Your task to perform on an android device: Go to location settings Image 0: 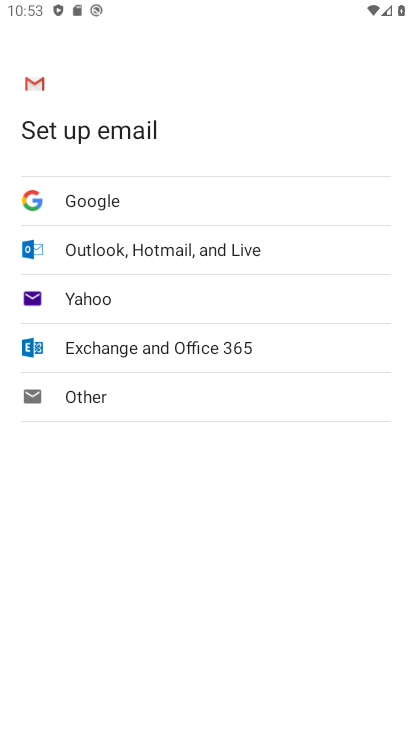
Step 0: press home button
Your task to perform on an android device: Go to location settings Image 1: 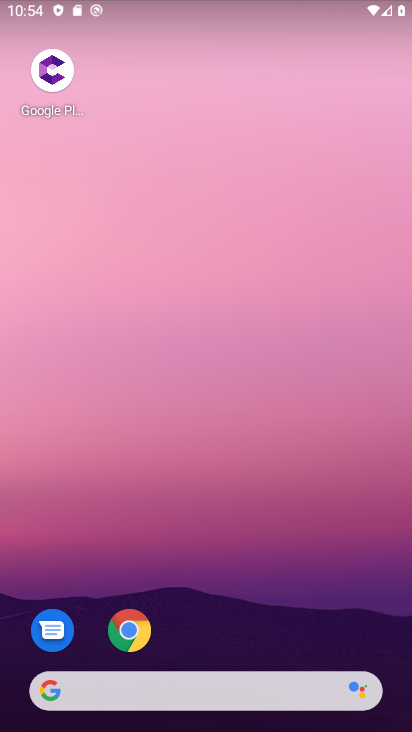
Step 1: drag from (274, 641) to (319, 116)
Your task to perform on an android device: Go to location settings Image 2: 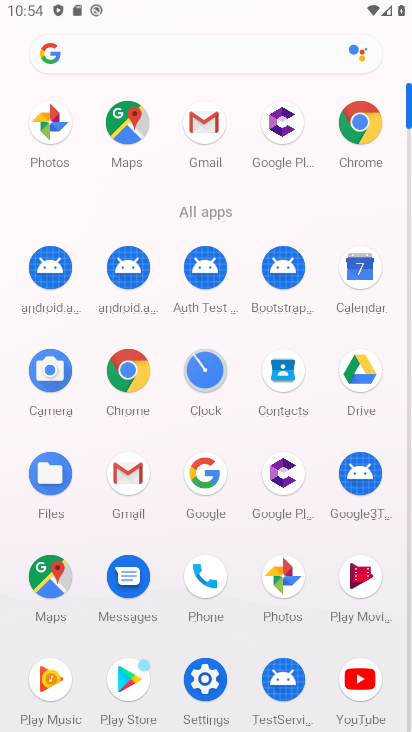
Step 2: click (206, 724)
Your task to perform on an android device: Go to location settings Image 3: 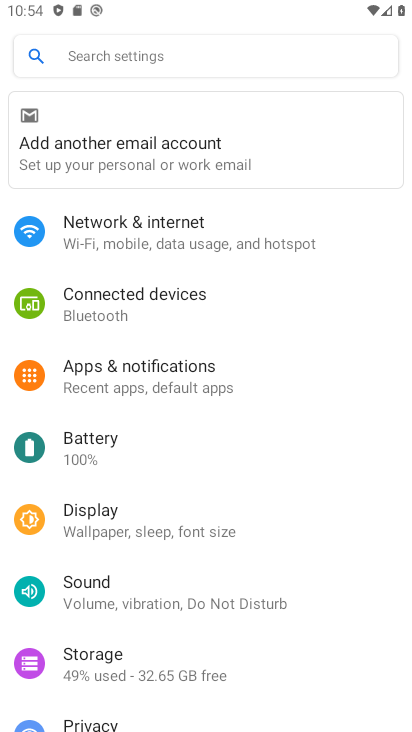
Step 3: drag from (142, 666) to (152, 270)
Your task to perform on an android device: Go to location settings Image 4: 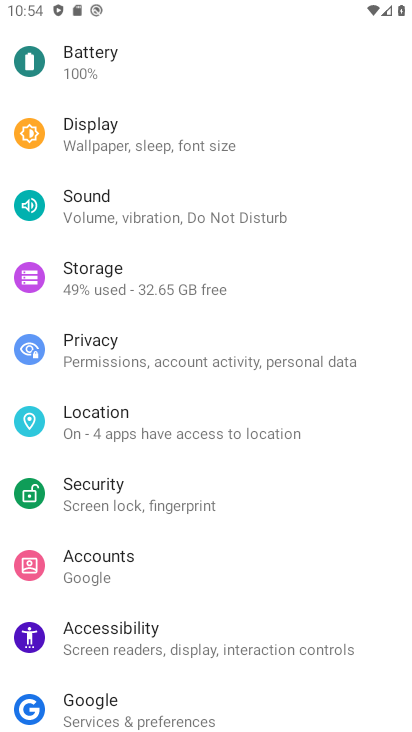
Step 4: click (218, 442)
Your task to perform on an android device: Go to location settings Image 5: 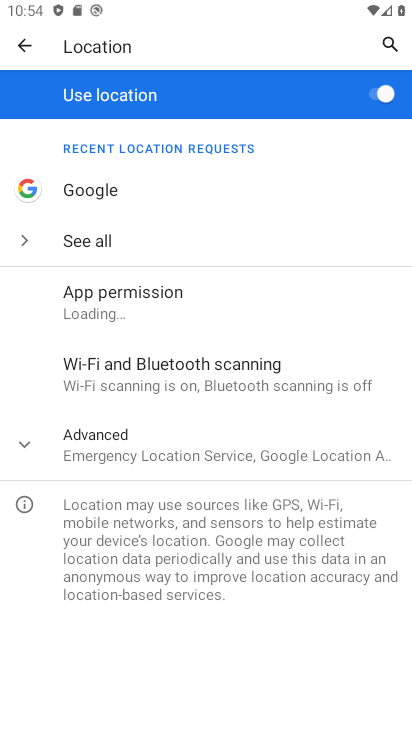
Step 5: click (158, 430)
Your task to perform on an android device: Go to location settings Image 6: 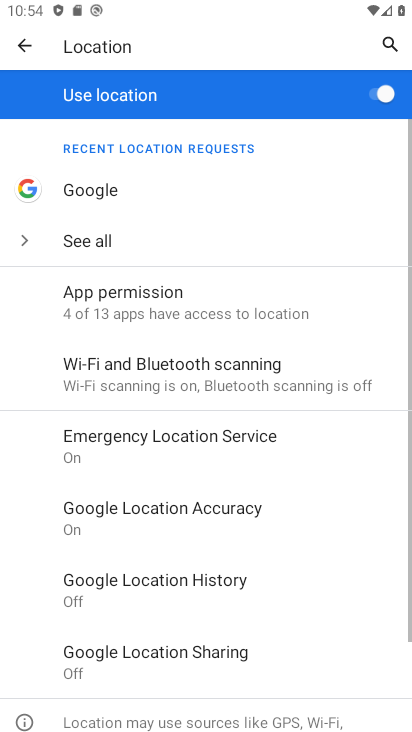
Step 6: task complete